Your task to perform on an android device: Search for top rated seafood restaurants on Google Maps Image 0: 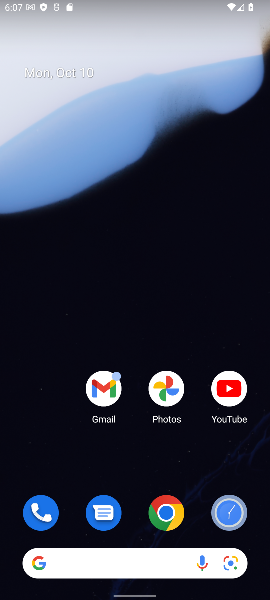
Step 0: drag from (134, 541) to (72, 197)
Your task to perform on an android device: Search for top rated seafood restaurants on Google Maps Image 1: 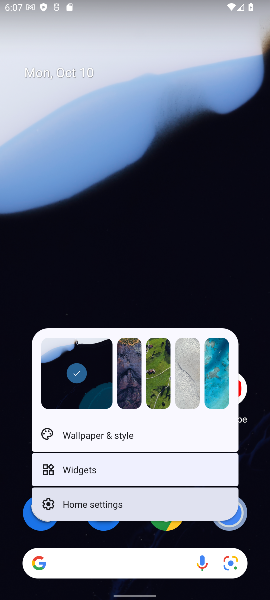
Step 1: click (179, 282)
Your task to perform on an android device: Search for top rated seafood restaurants on Google Maps Image 2: 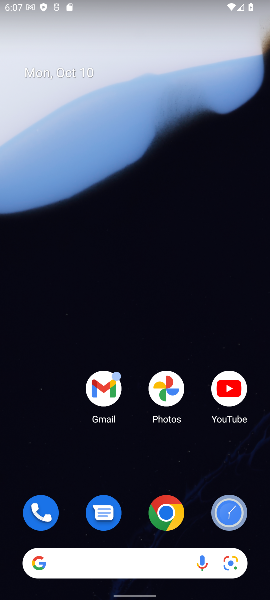
Step 2: drag from (133, 538) to (153, 60)
Your task to perform on an android device: Search for top rated seafood restaurants on Google Maps Image 3: 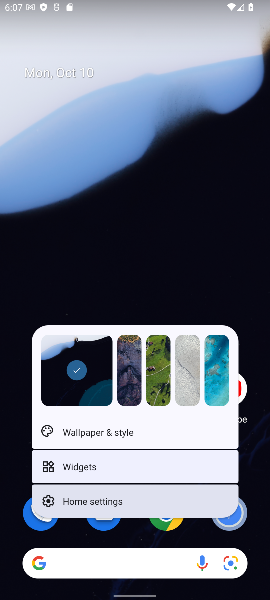
Step 3: click (148, 108)
Your task to perform on an android device: Search for top rated seafood restaurants on Google Maps Image 4: 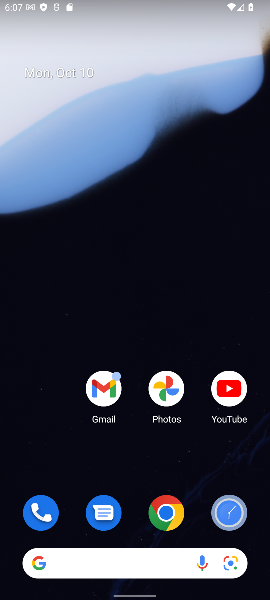
Step 4: drag from (135, 540) to (107, 54)
Your task to perform on an android device: Search for top rated seafood restaurants on Google Maps Image 5: 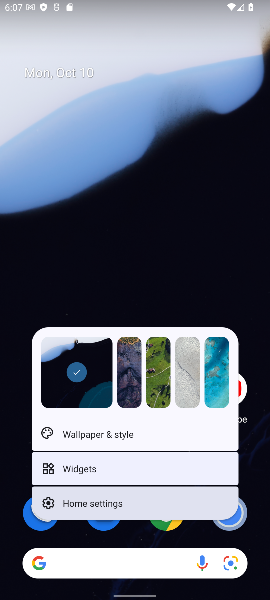
Step 5: click (144, 205)
Your task to perform on an android device: Search for top rated seafood restaurants on Google Maps Image 6: 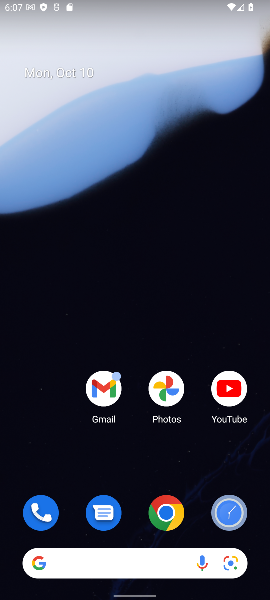
Step 6: task complete